Your task to perform on an android device: open chrome privacy settings Image 0: 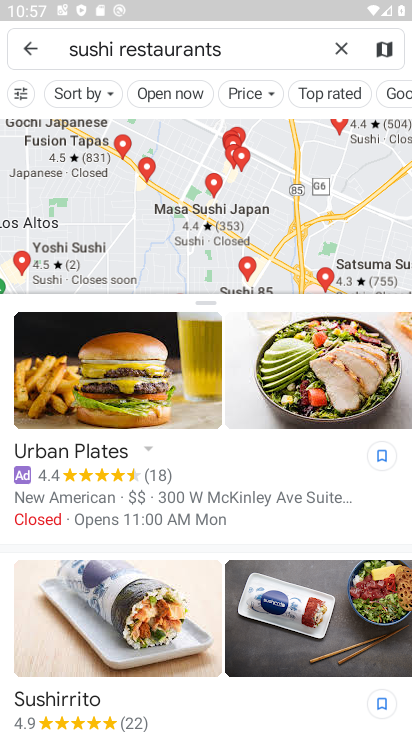
Step 0: press home button
Your task to perform on an android device: open chrome privacy settings Image 1: 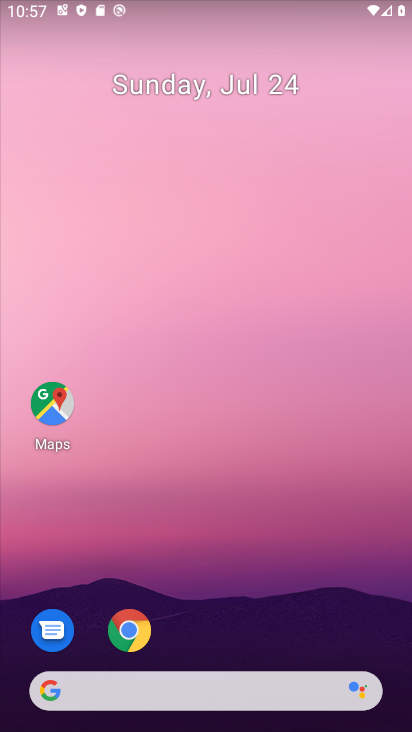
Step 1: click (140, 618)
Your task to perform on an android device: open chrome privacy settings Image 2: 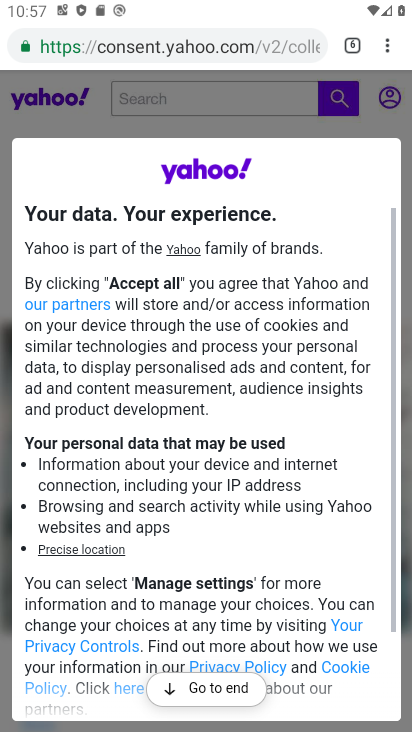
Step 2: click (392, 54)
Your task to perform on an android device: open chrome privacy settings Image 3: 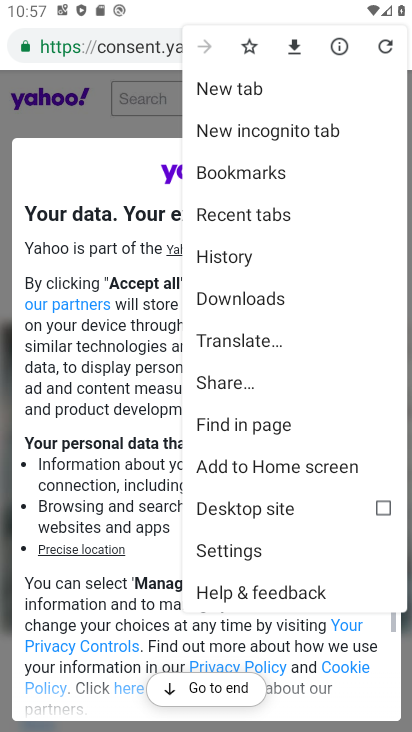
Step 3: click (258, 551)
Your task to perform on an android device: open chrome privacy settings Image 4: 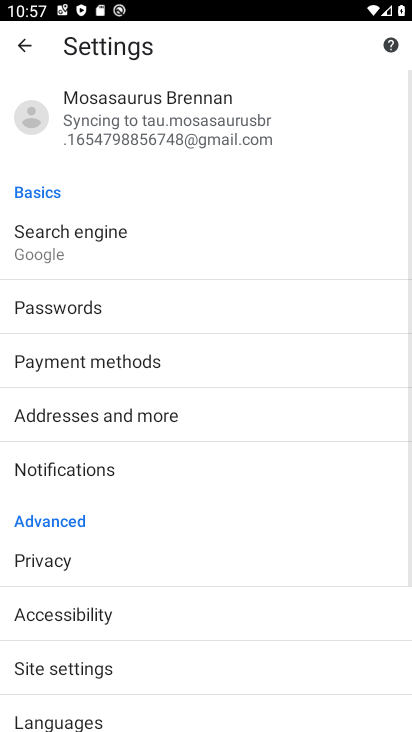
Step 4: click (74, 560)
Your task to perform on an android device: open chrome privacy settings Image 5: 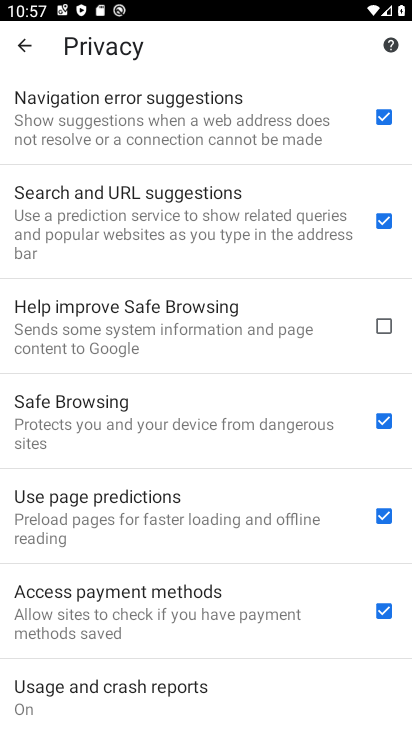
Step 5: task complete